Your task to perform on an android device: set default search engine in the chrome app Image 0: 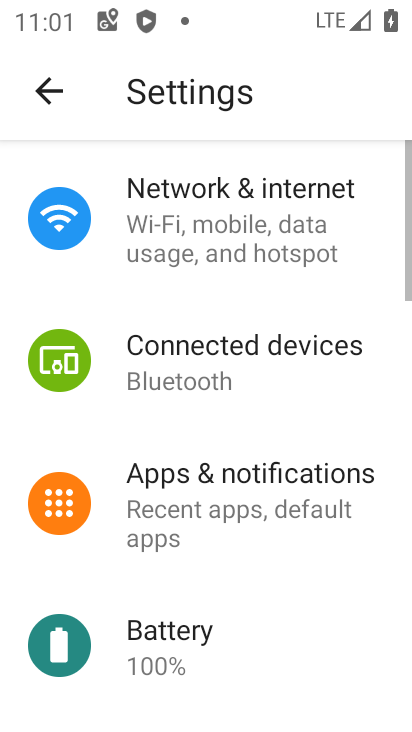
Step 0: press home button
Your task to perform on an android device: set default search engine in the chrome app Image 1: 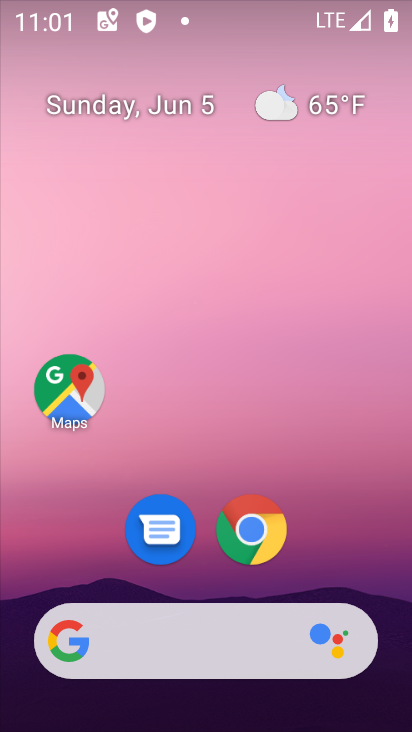
Step 1: click (265, 628)
Your task to perform on an android device: set default search engine in the chrome app Image 2: 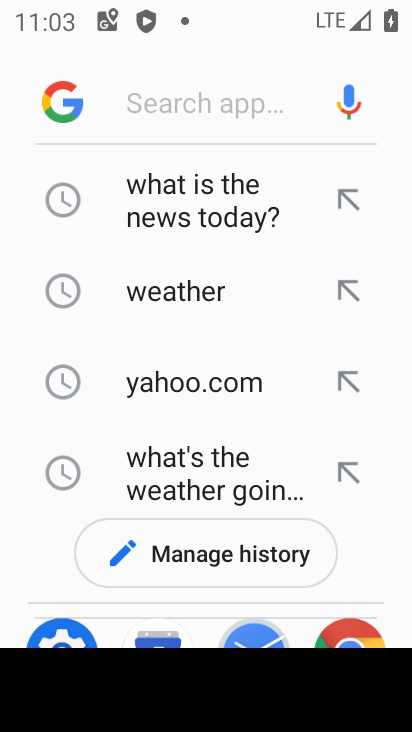
Step 2: press home button
Your task to perform on an android device: set default search engine in the chrome app Image 3: 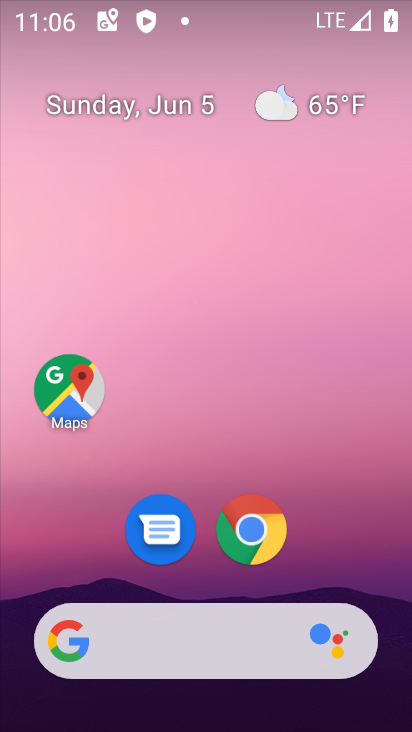
Step 3: click (242, 530)
Your task to perform on an android device: set default search engine in the chrome app Image 4: 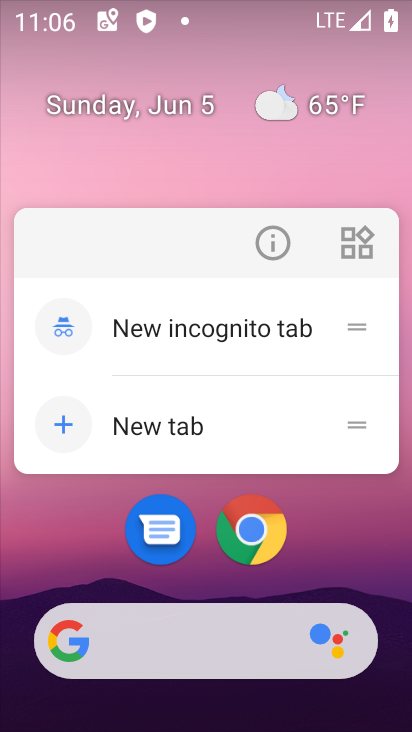
Step 4: click (242, 530)
Your task to perform on an android device: set default search engine in the chrome app Image 5: 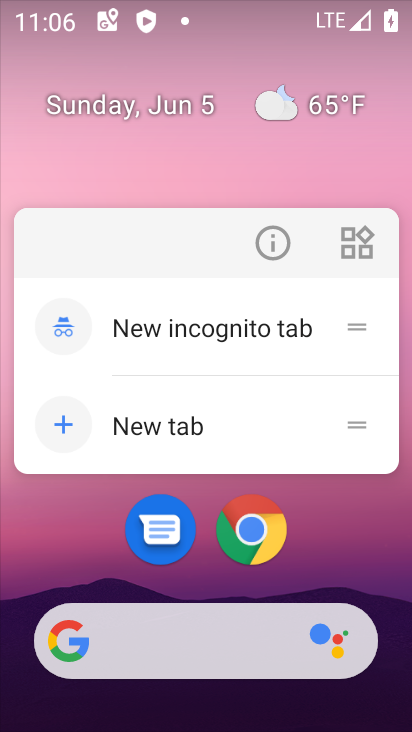
Step 5: click (242, 530)
Your task to perform on an android device: set default search engine in the chrome app Image 6: 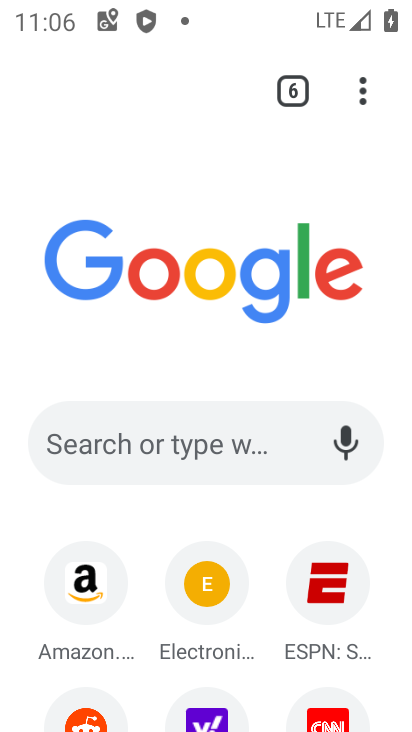
Step 6: click (348, 79)
Your task to perform on an android device: set default search engine in the chrome app Image 7: 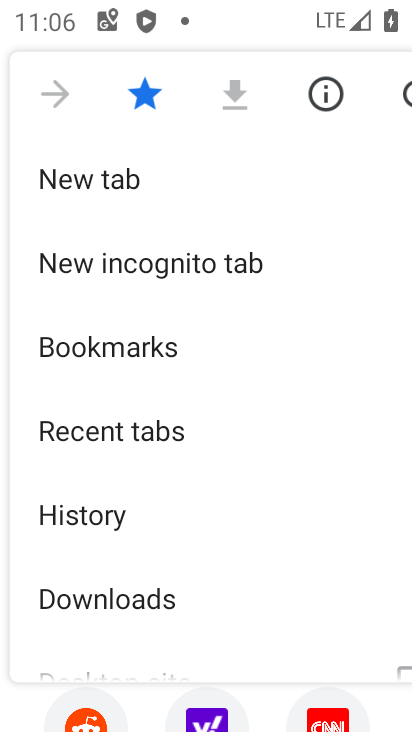
Step 7: drag from (217, 625) to (380, 0)
Your task to perform on an android device: set default search engine in the chrome app Image 8: 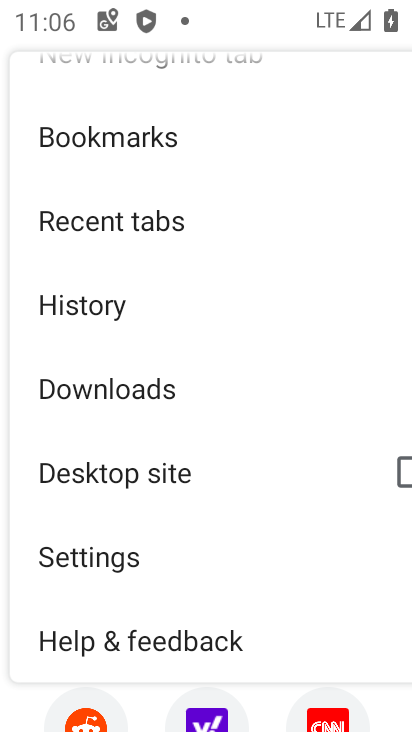
Step 8: click (127, 566)
Your task to perform on an android device: set default search engine in the chrome app Image 9: 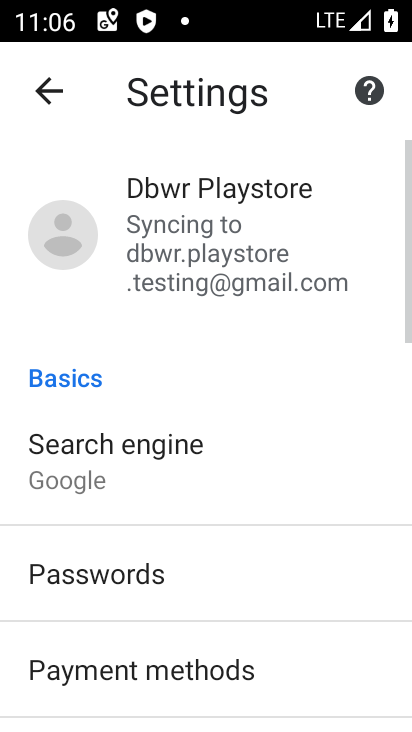
Step 9: click (208, 451)
Your task to perform on an android device: set default search engine in the chrome app Image 10: 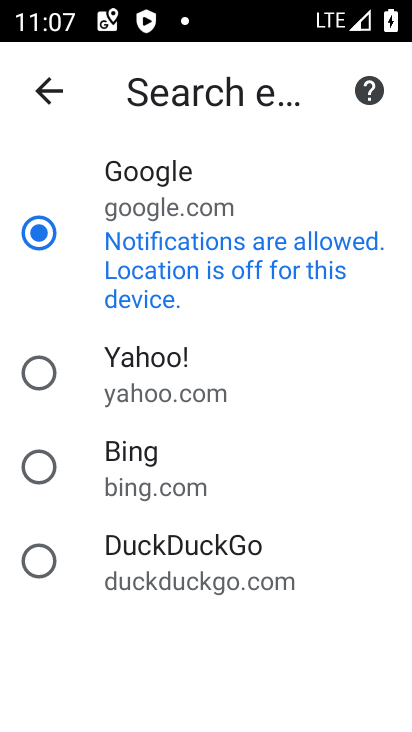
Step 10: task complete